Your task to perform on an android device: turn off translation in the chrome app Image 0: 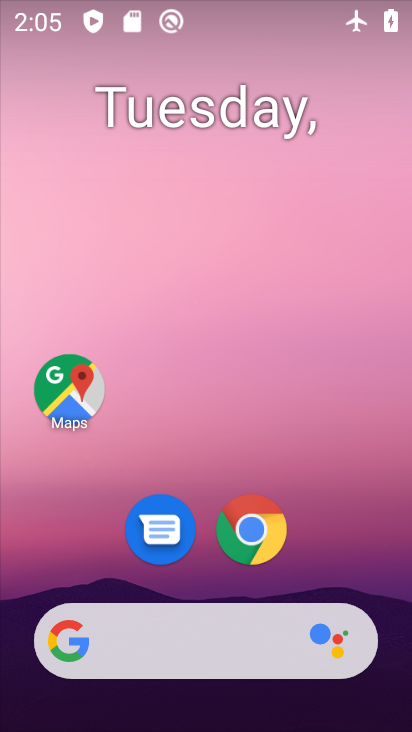
Step 0: drag from (393, 604) to (248, 148)
Your task to perform on an android device: turn off translation in the chrome app Image 1: 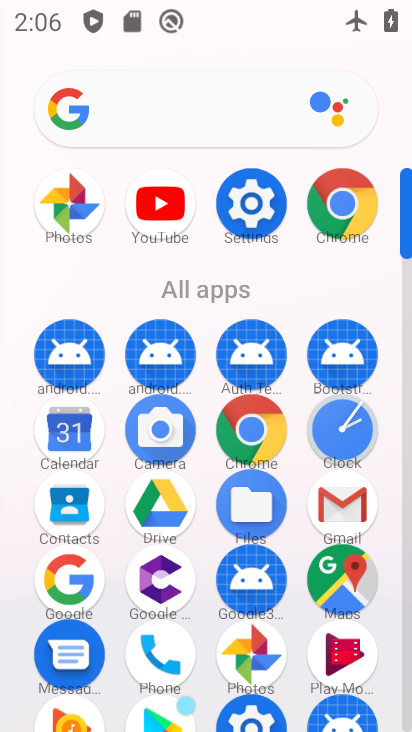
Step 1: click (342, 221)
Your task to perform on an android device: turn off translation in the chrome app Image 2: 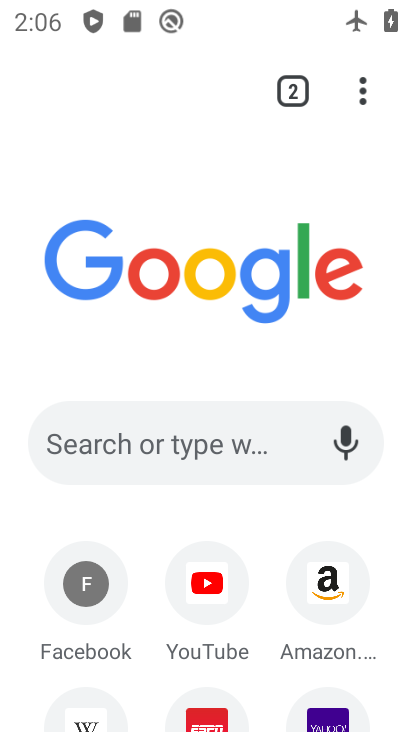
Step 2: click (374, 103)
Your task to perform on an android device: turn off translation in the chrome app Image 3: 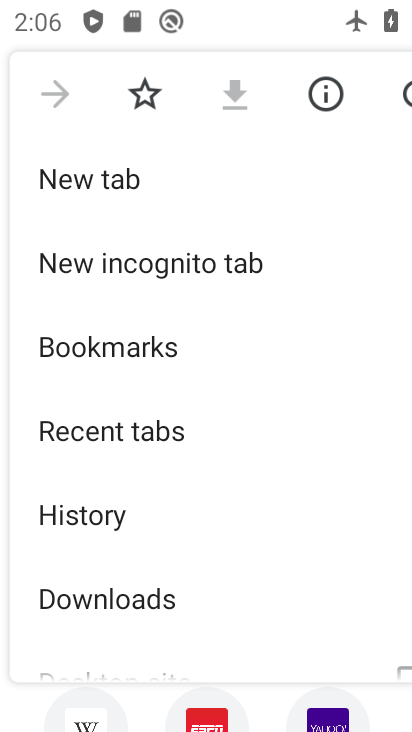
Step 3: drag from (195, 633) to (221, 146)
Your task to perform on an android device: turn off translation in the chrome app Image 4: 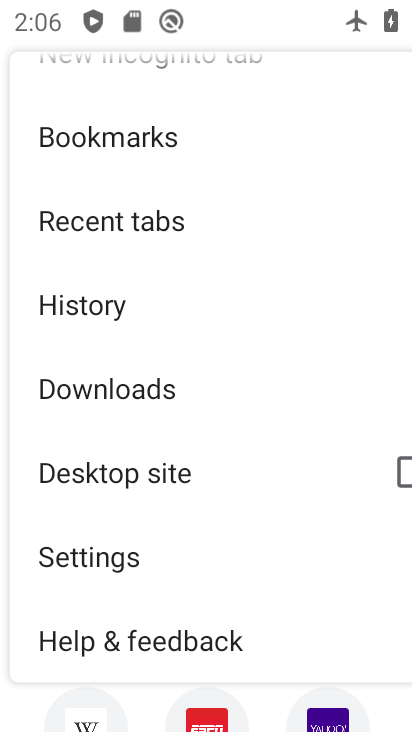
Step 4: click (177, 571)
Your task to perform on an android device: turn off translation in the chrome app Image 5: 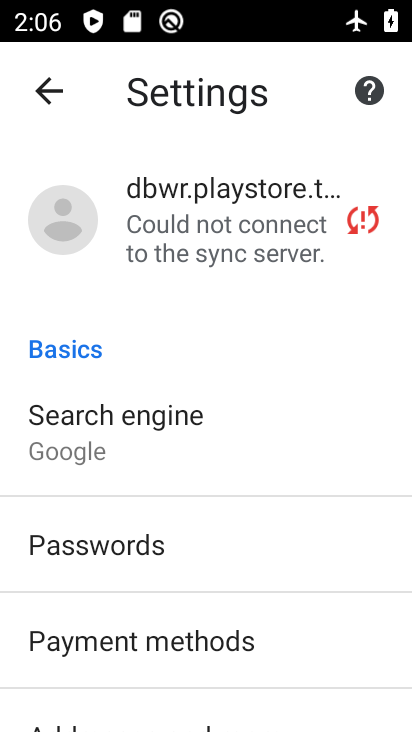
Step 5: drag from (205, 684) to (195, 211)
Your task to perform on an android device: turn off translation in the chrome app Image 6: 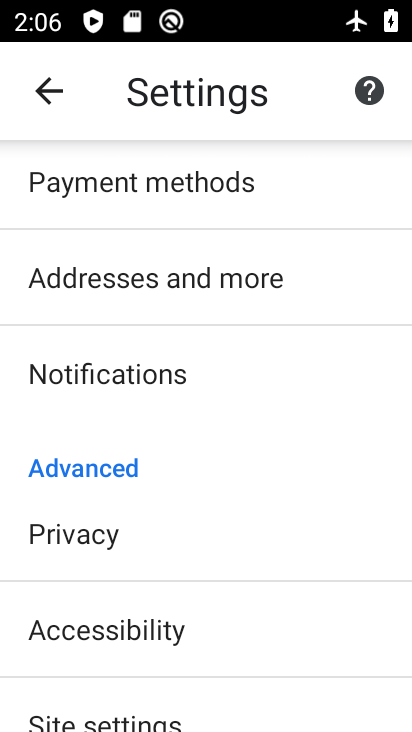
Step 6: drag from (192, 635) to (145, 178)
Your task to perform on an android device: turn off translation in the chrome app Image 7: 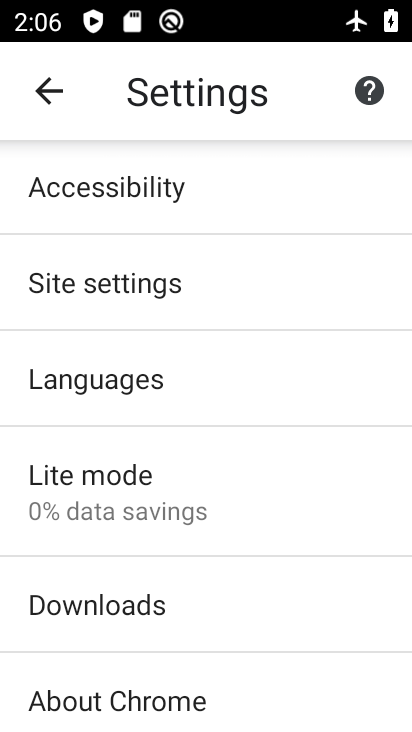
Step 7: click (166, 366)
Your task to perform on an android device: turn off translation in the chrome app Image 8: 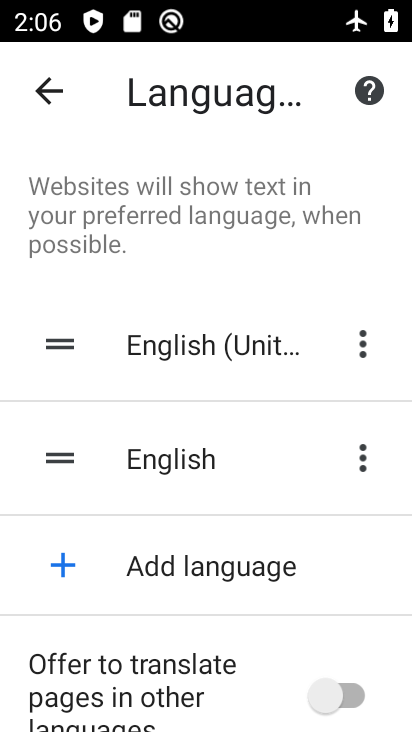
Step 8: task complete